Your task to perform on an android device: Open Google Chrome and open the bookmarks view Image 0: 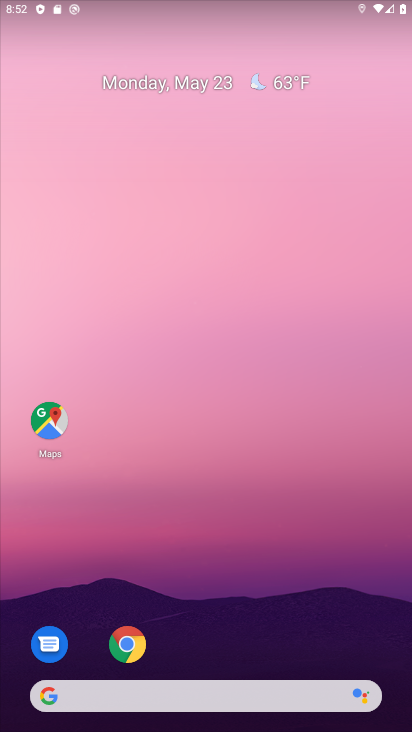
Step 0: press home button
Your task to perform on an android device: Open Google Chrome and open the bookmarks view Image 1: 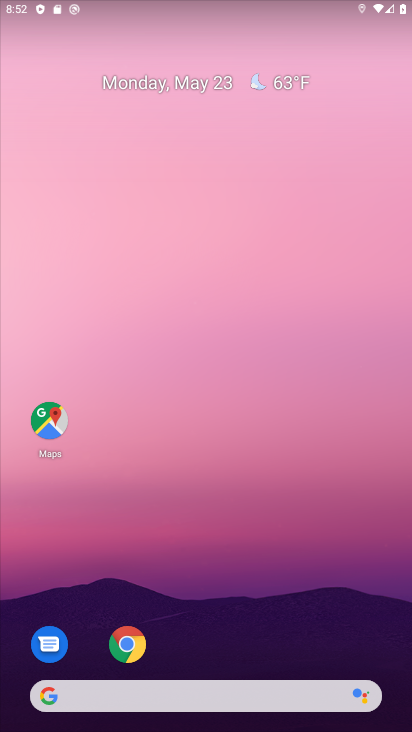
Step 1: click (129, 638)
Your task to perform on an android device: Open Google Chrome and open the bookmarks view Image 2: 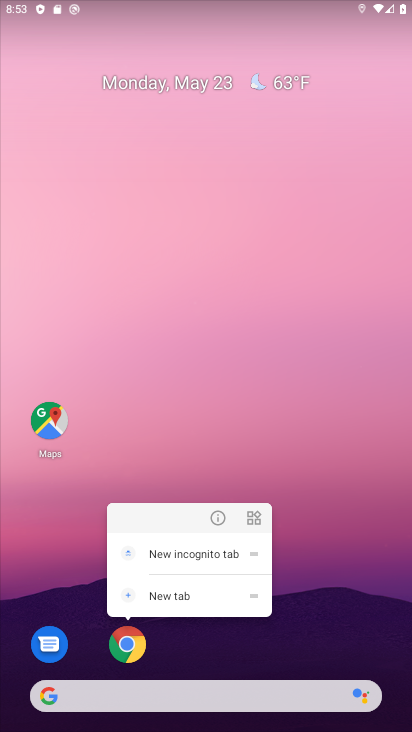
Step 2: click (125, 635)
Your task to perform on an android device: Open Google Chrome and open the bookmarks view Image 3: 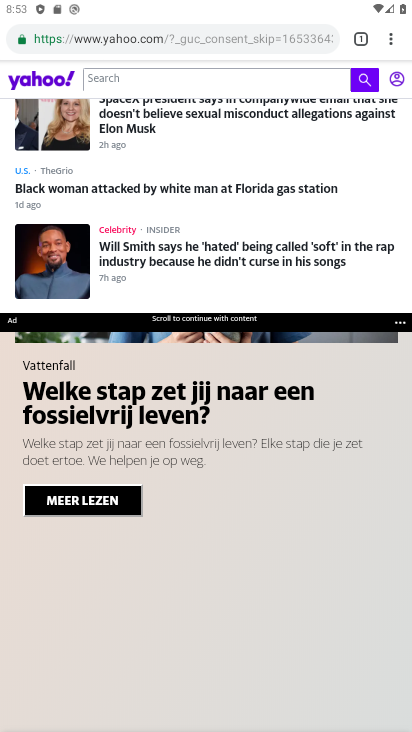
Step 3: click (392, 33)
Your task to perform on an android device: Open Google Chrome and open the bookmarks view Image 4: 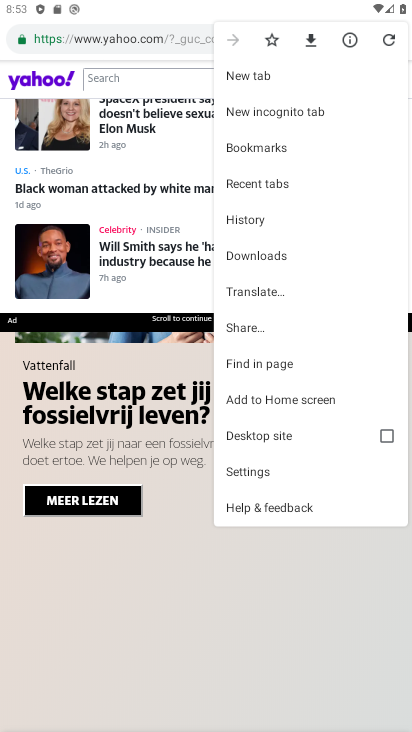
Step 4: click (294, 139)
Your task to perform on an android device: Open Google Chrome and open the bookmarks view Image 5: 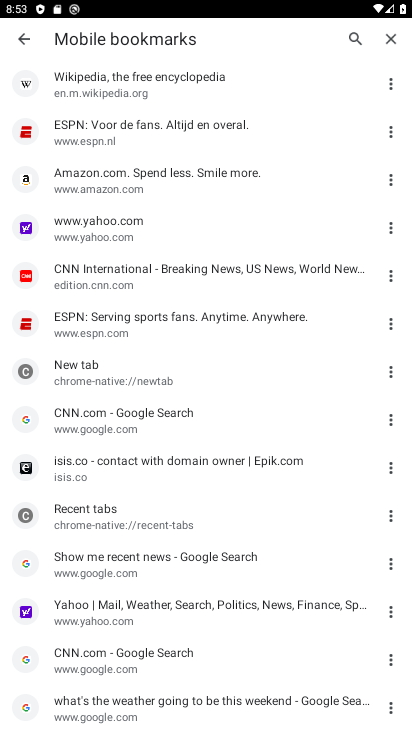
Step 5: click (136, 271)
Your task to perform on an android device: Open Google Chrome and open the bookmarks view Image 6: 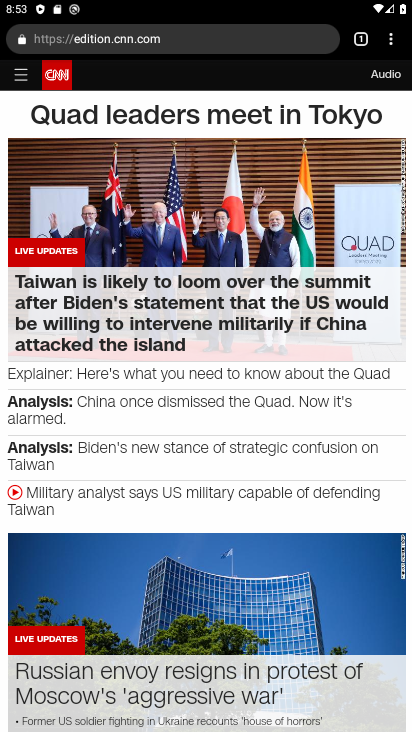
Step 6: drag from (209, 673) to (260, 301)
Your task to perform on an android device: Open Google Chrome and open the bookmarks view Image 7: 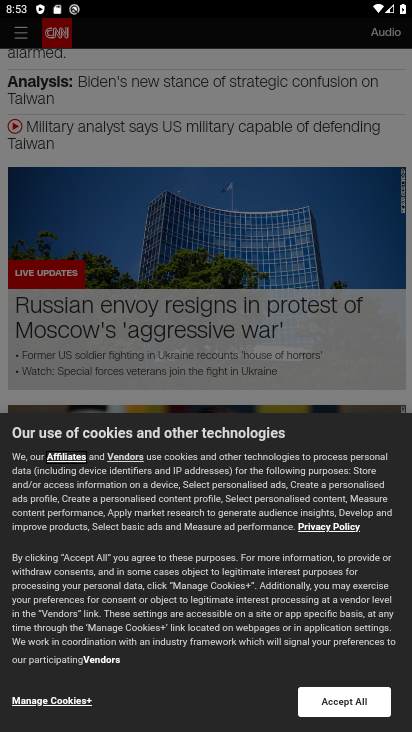
Step 7: click (343, 706)
Your task to perform on an android device: Open Google Chrome and open the bookmarks view Image 8: 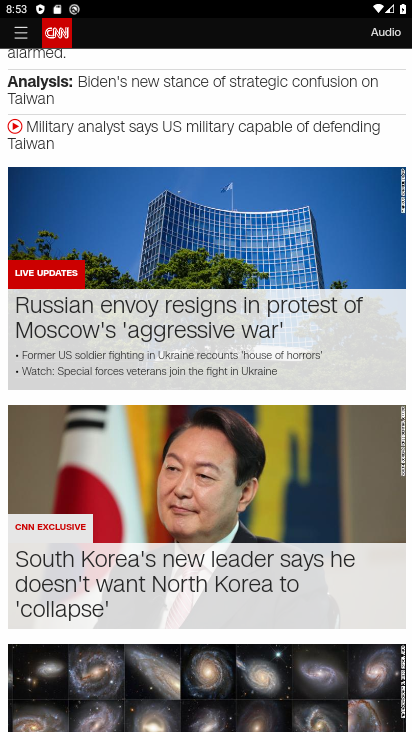
Step 8: task complete